Your task to perform on an android device: toggle priority inbox in the gmail app Image 0: 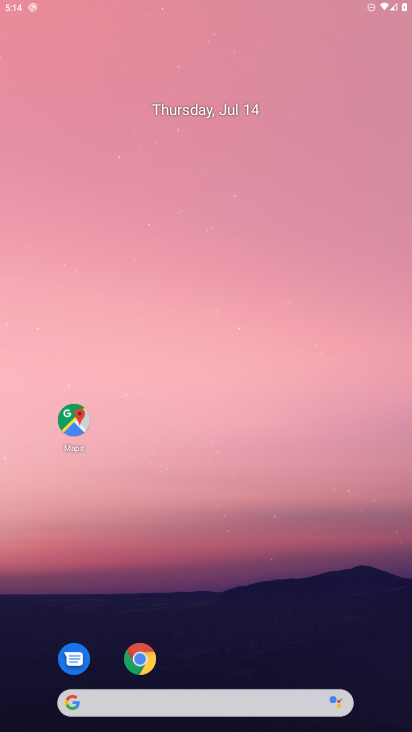
Step 0: press home button
Your task to perform on an android device: toggle priority inbox in the gmail app Image 1: 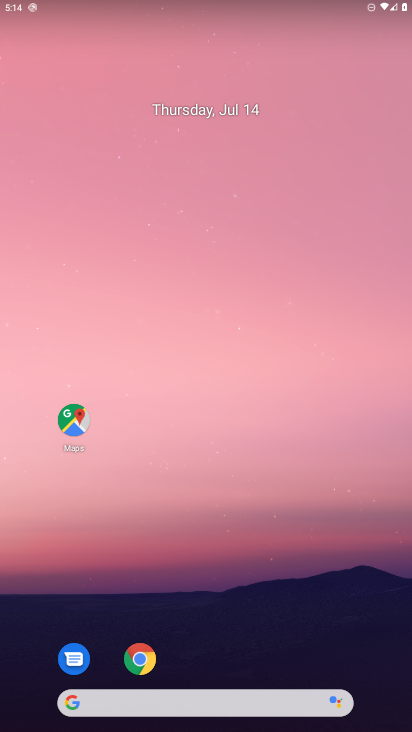
Step 1: drag from (215, 671) to (278, 30)
Your task to perform on an android device: toggle priority inbox in the gmail app Image 2: 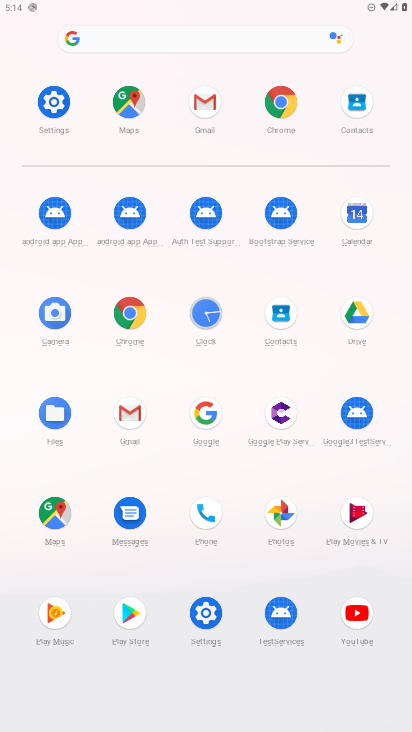
Step 2: click (203, 97)
Your task to perform on an android device: toggle priority inbox in the gmail app Image 3: 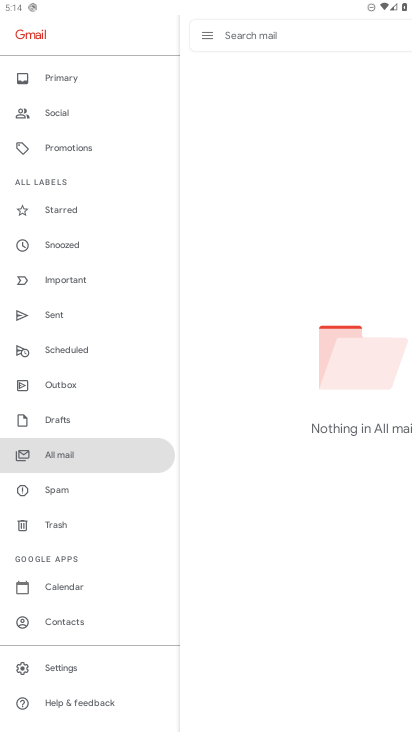
Step 3: click (94, 661)
Your task to perform on an android device: toggle priority inbox in the gmail app Image 4: 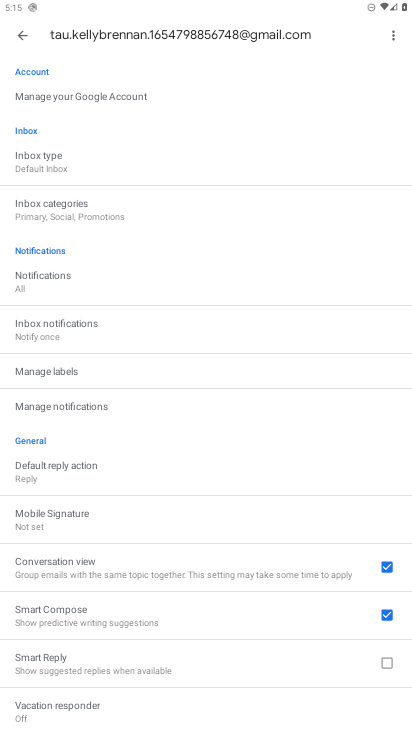
Step 4: click (80, 162)
Your task to perform on an android device: toggle priority inbox in the gmail app Image 5: 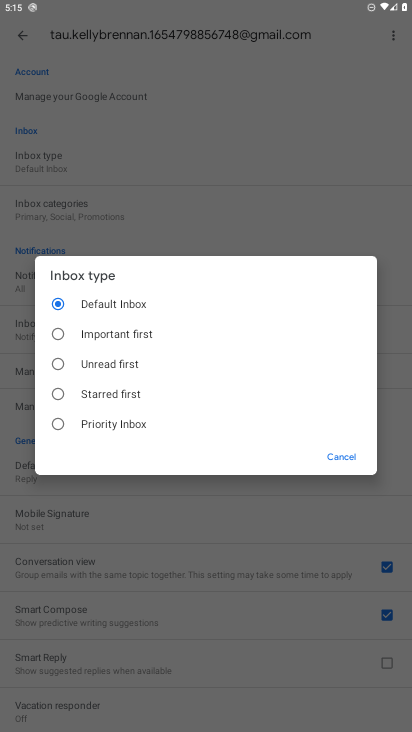
Step 5: click (53, 423)
Your task to perform on an android device: toggle priority inbox in the gmail app Image 6: 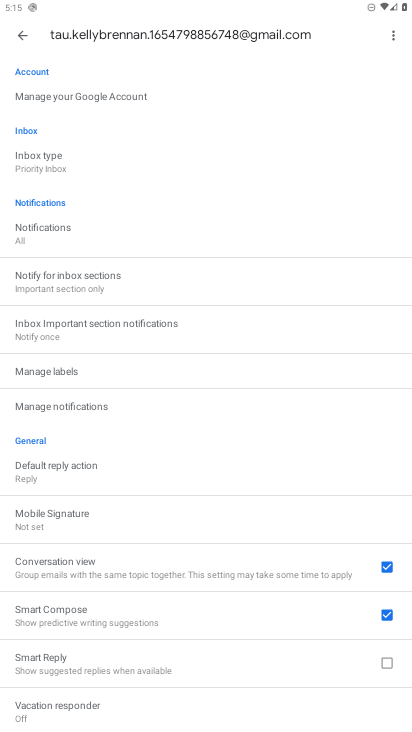
Step 6: task complete